Your task to perform on an android device: Go to location settings Image 0: 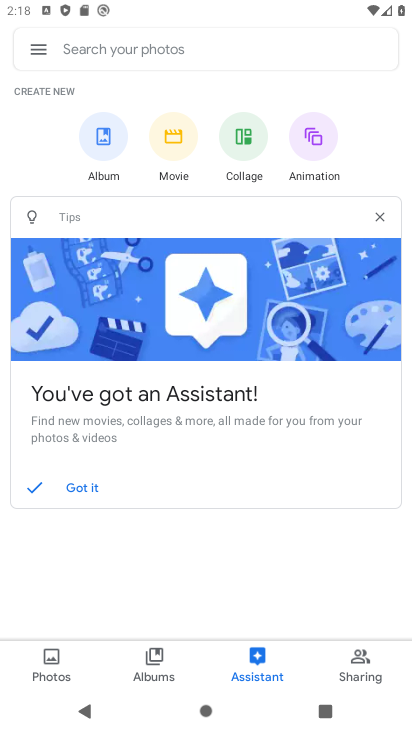
Step 0: press home button
Your task to perform on an android device: Go to location settings Image 1: 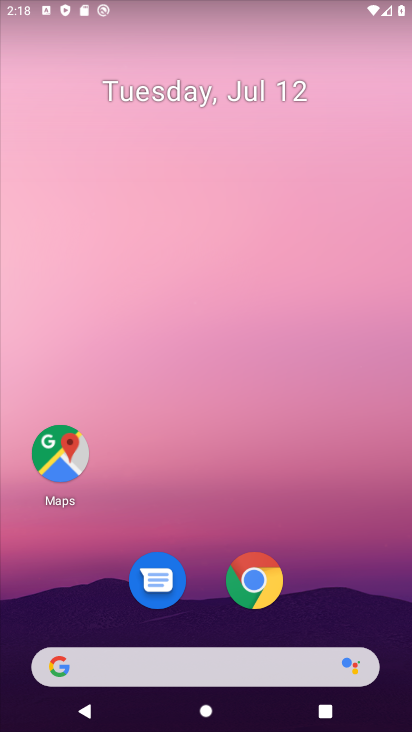
Step 1: drag from (211, 598) to (223, 128)
Your task to perform on an android device: Go to location settings Image 2: 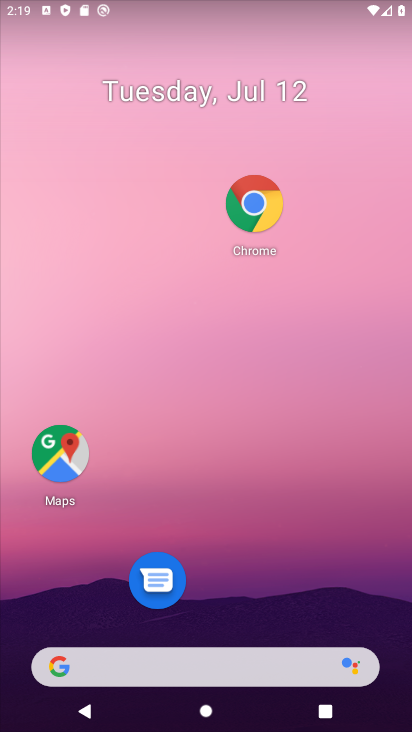
Step 2: drag from (272, 418) to (195, 9)
Your task to perform on an android device: Go to location settings Image 3: 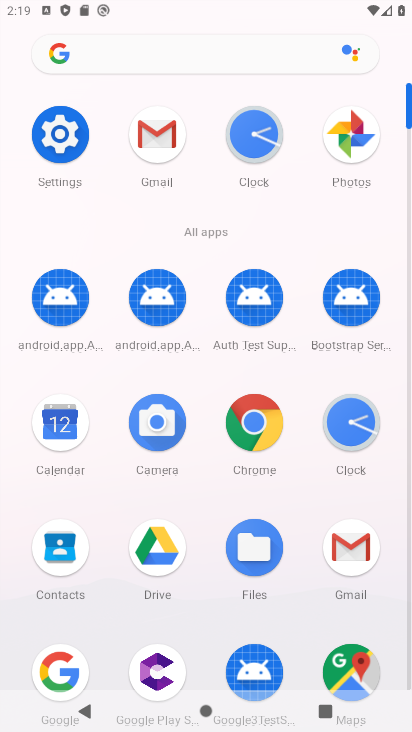
Step 3: click (40, 141)
Your task to perform on an android device: Go to location settings Image 4: 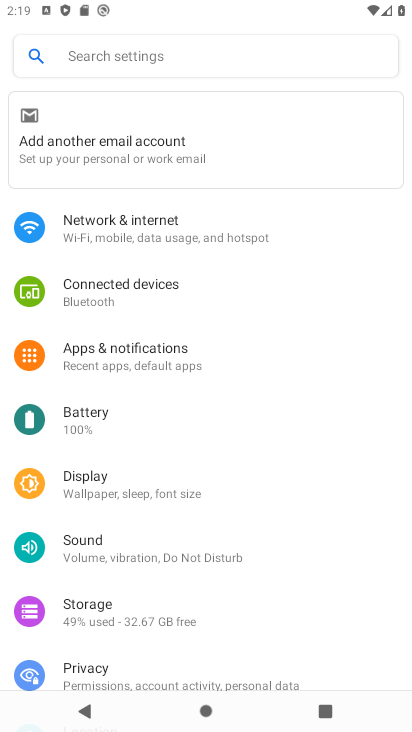
Step 4: drag from (73, 661) to (130, 77)
Your task to perform on an android device: Go to location settings Image 5: 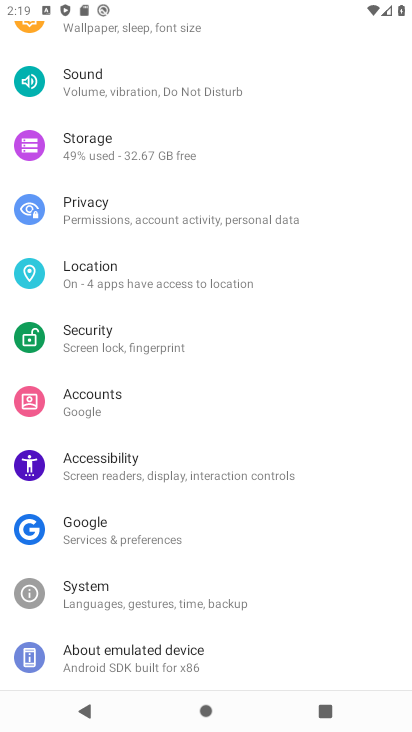
Step 5: click (137, 277)
Your task to perform on an android device: Go to location settings Image 6: 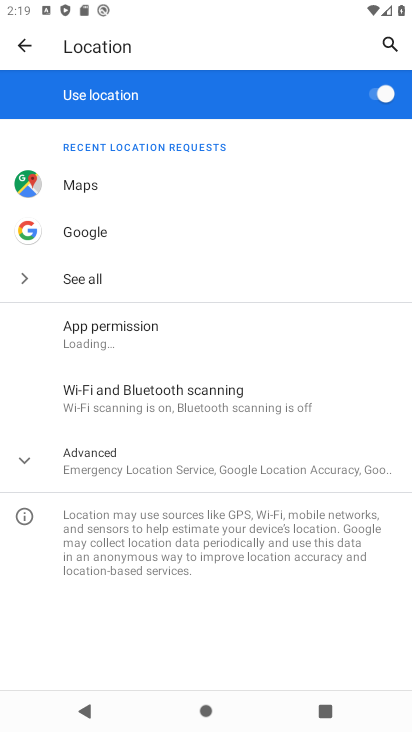
Step 6: task complete